Your task to perform on an android device: check the backup settings in the google photos Image 0: 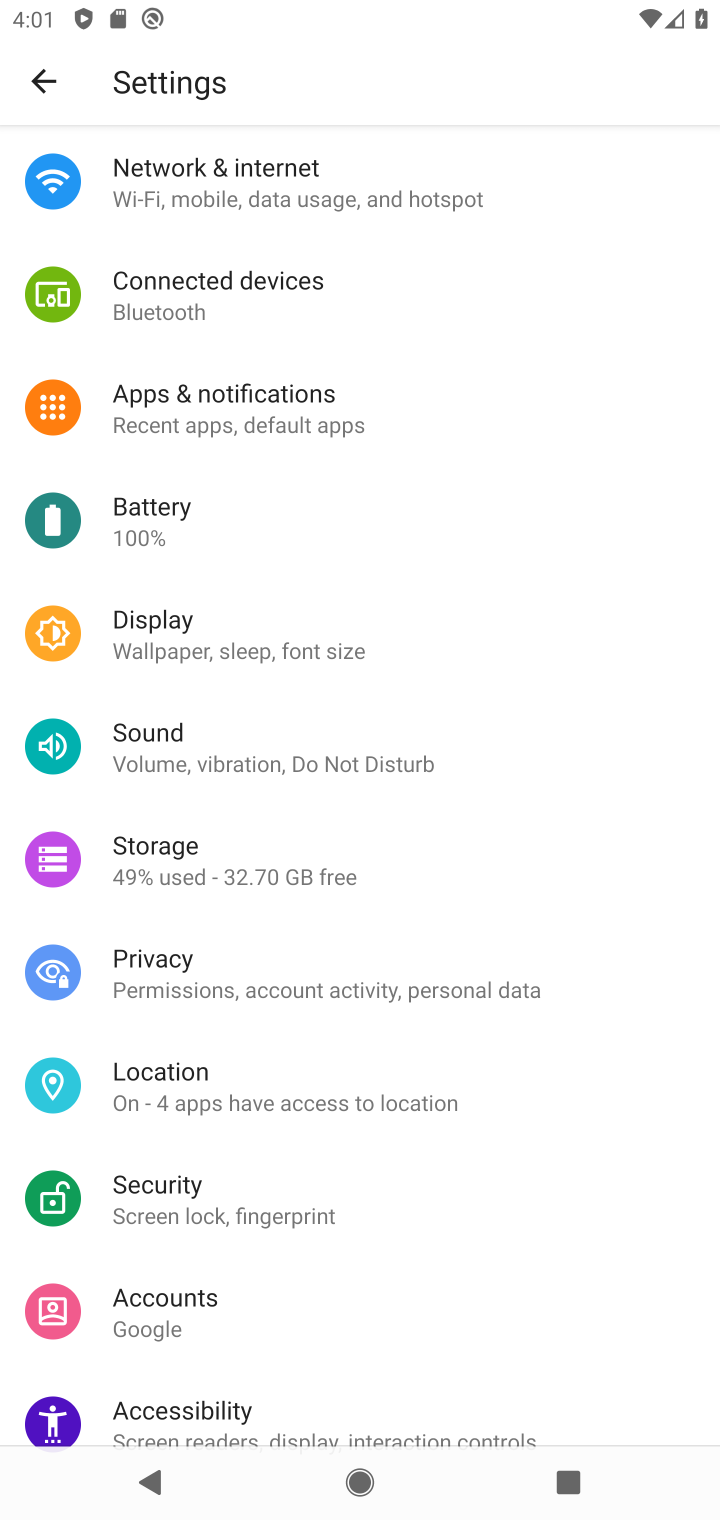
Step 0: press back button
Your task to perform on an android device: check the backup settings in the google photos Image 1: 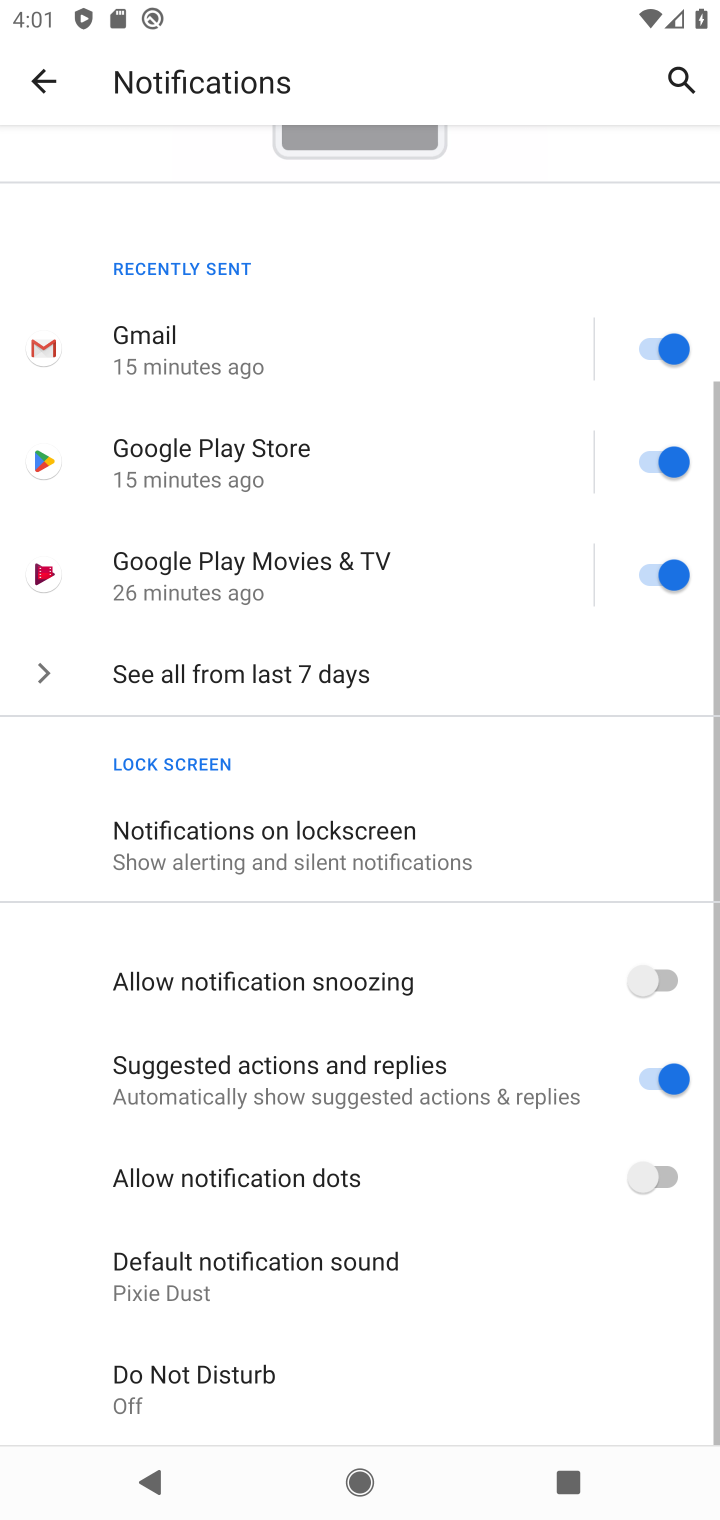
Step 1: press back button
Your task to perform on an android device: check the backup settings in the google photos Image 2: 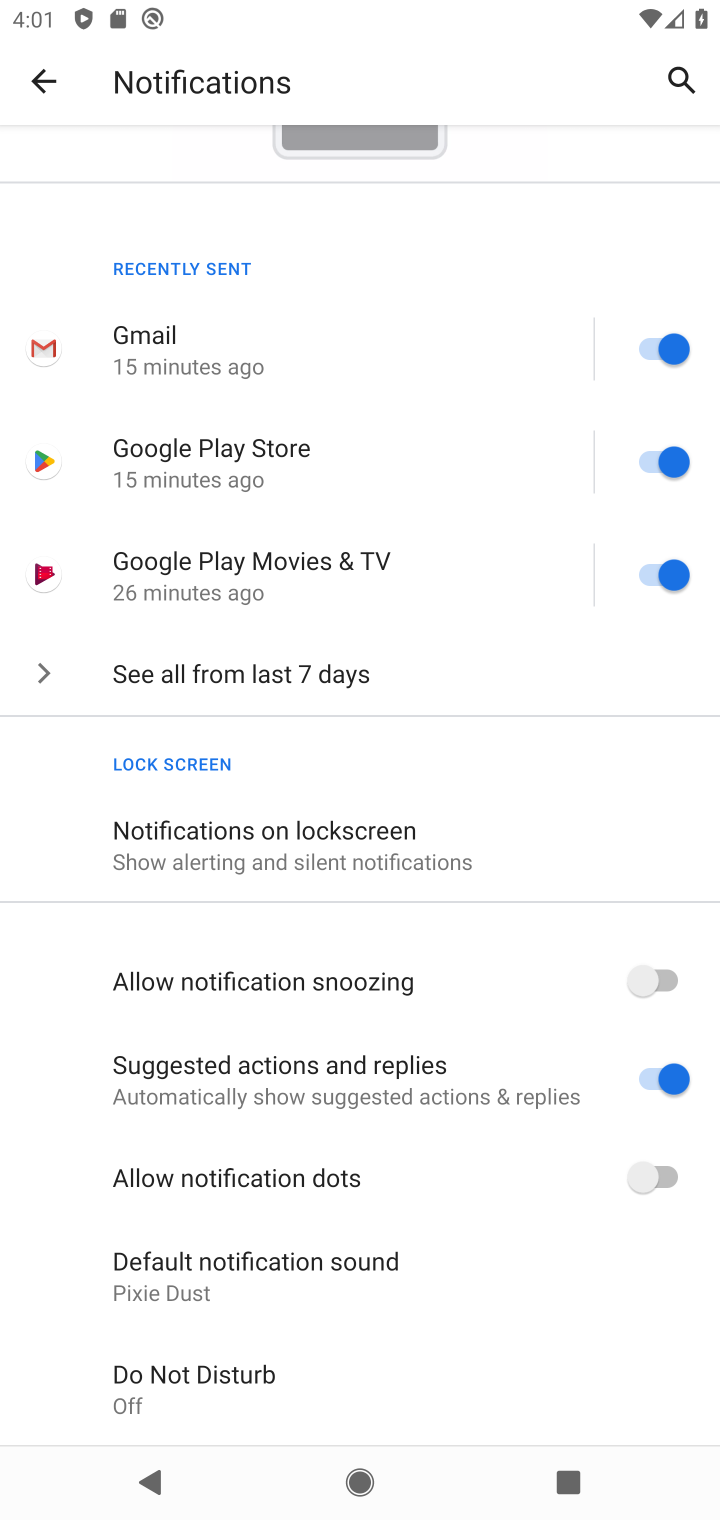
Step 2: press back button
Your task to perform on an android device: check the backup settings in the google photos Image 3: 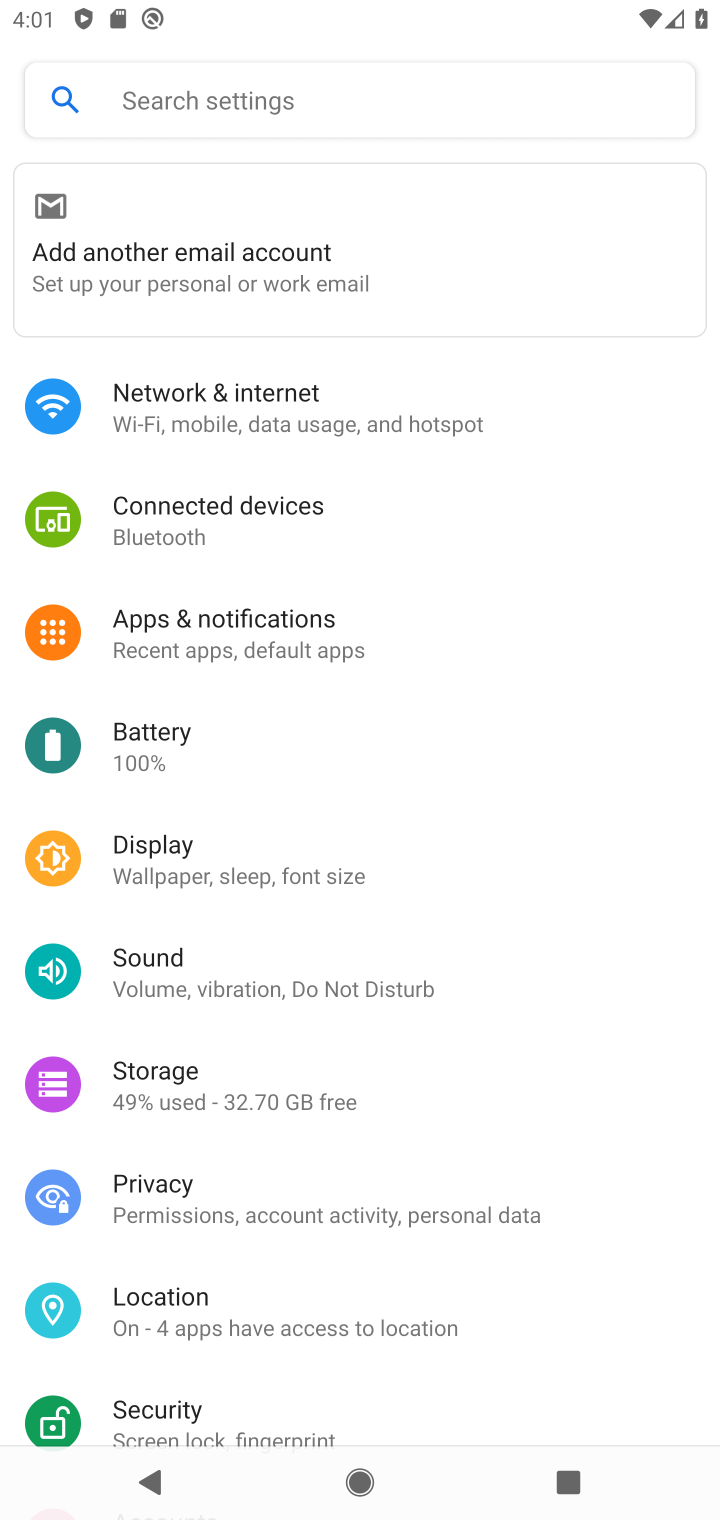
Step 3: press back button
Your task to perform on an android device: check the backup settings in the google photos Image 4: 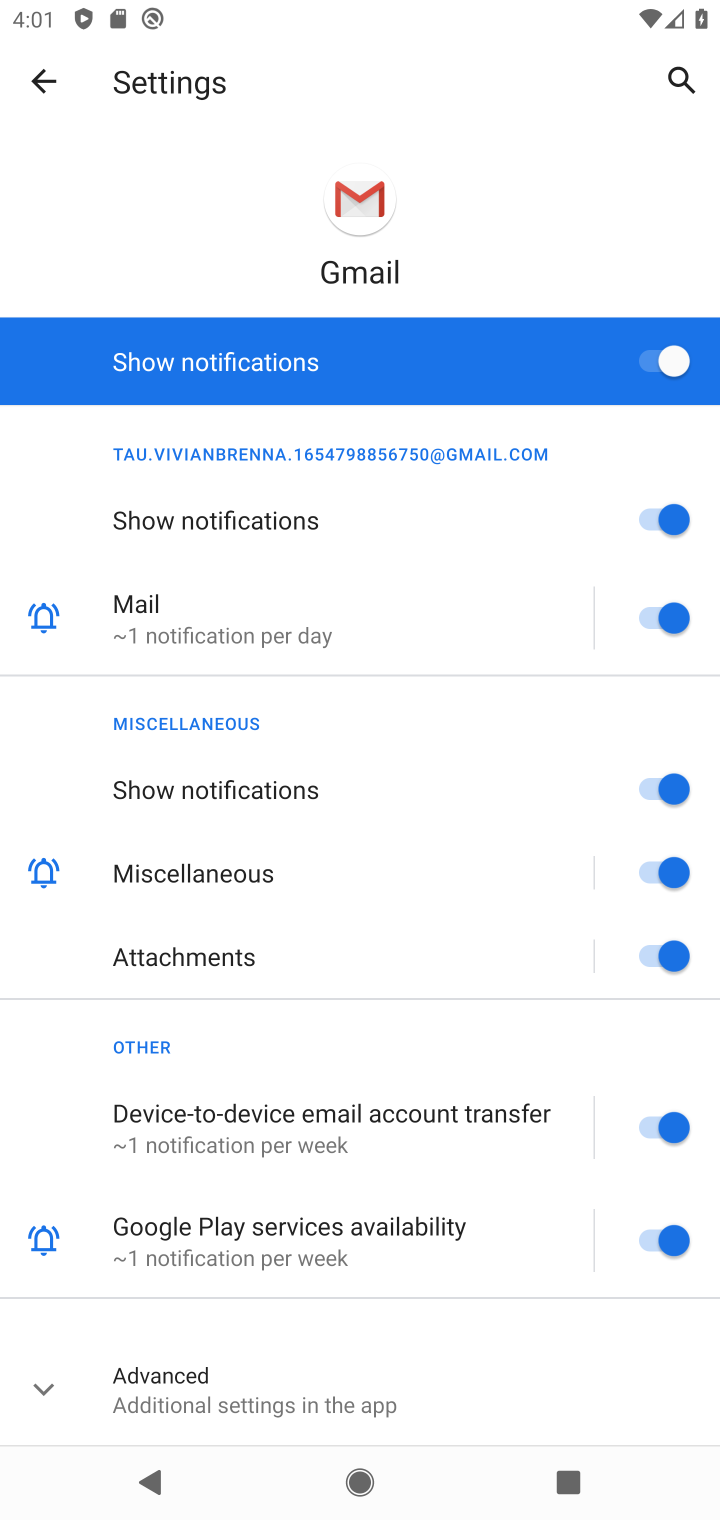
Step 4: press back button
Your task to perform on an android device: check the backup settings in the google photos Image 5: 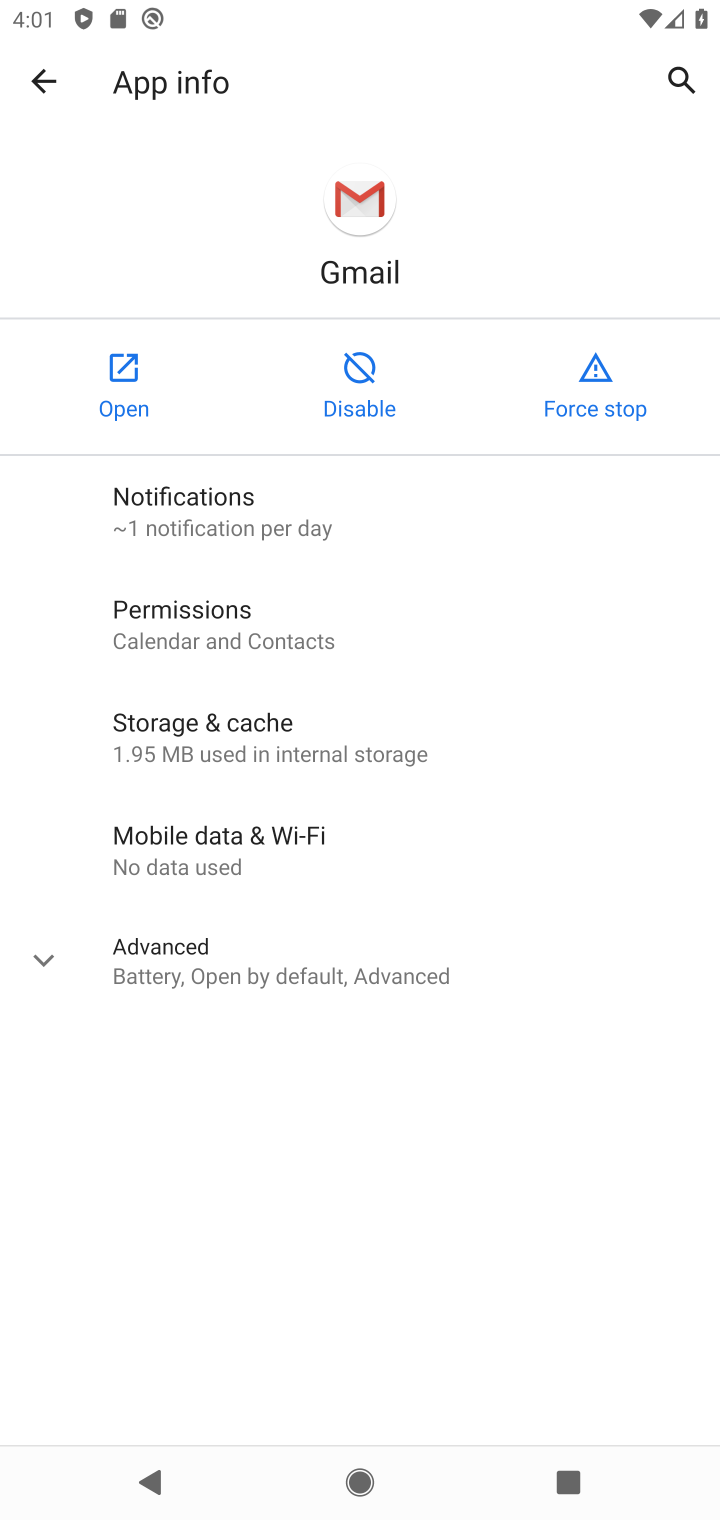
Step 5: press back button
Your task to perform on an android device: check the backup settings in the google photos Image 6: 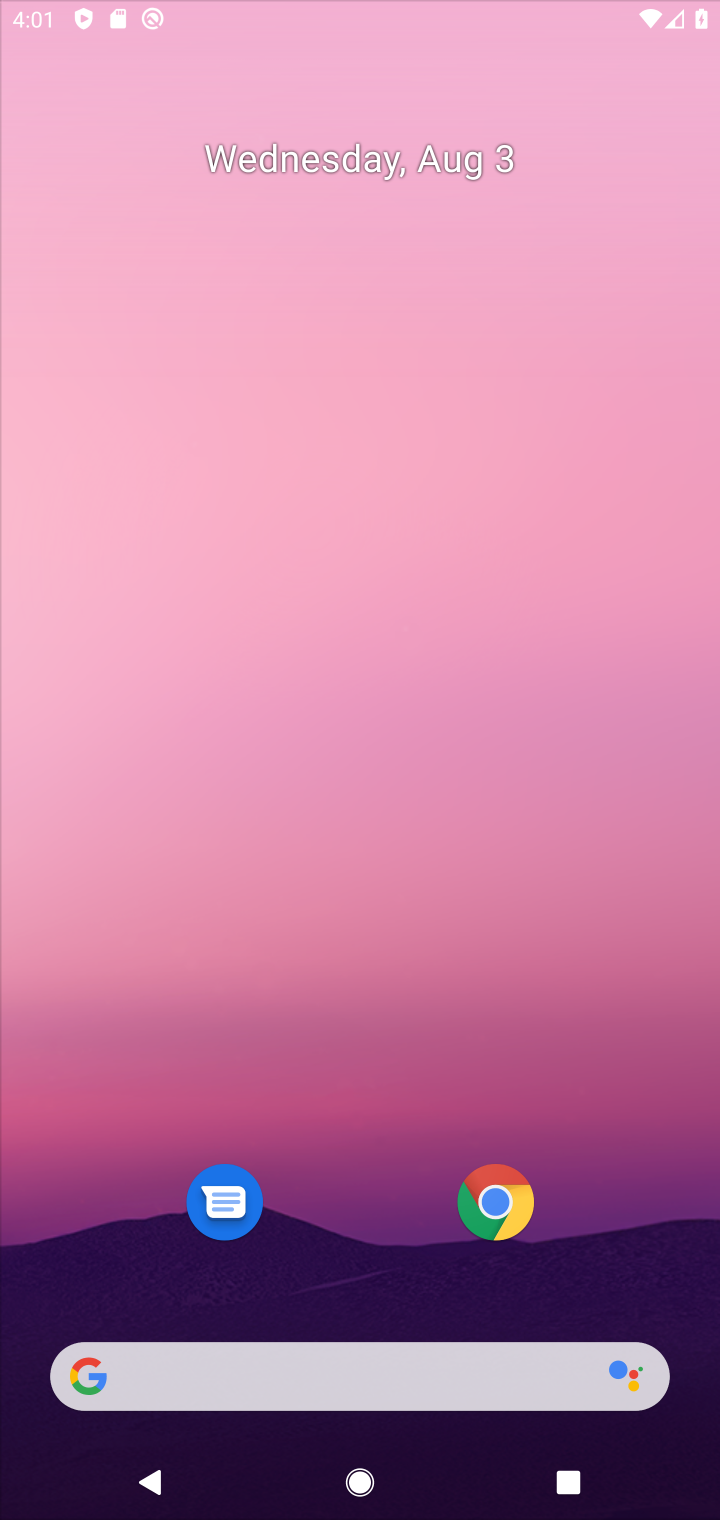
Step 6: press back button
Your task to perform on an android device: check the backup settings in the google photos Image 7: 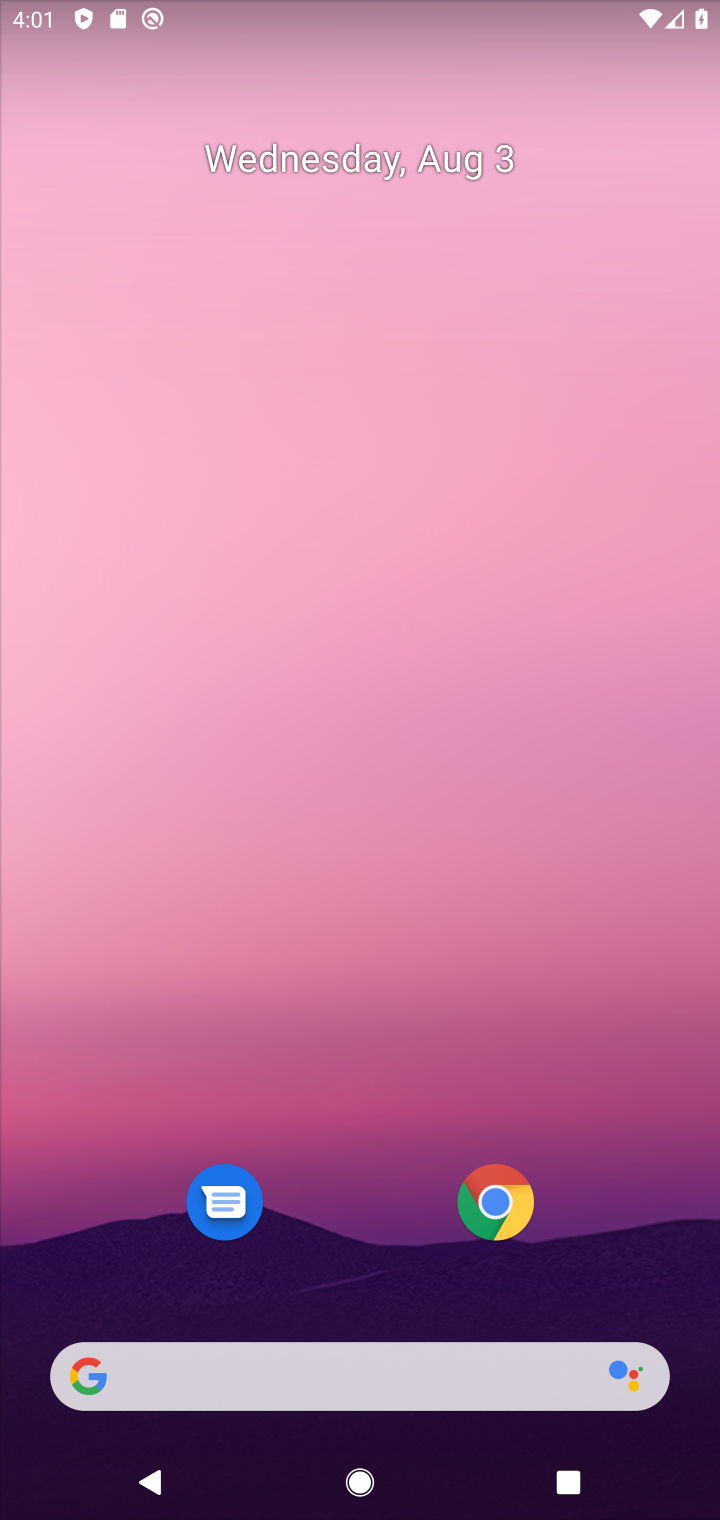
Step 7: drag from (321, 1168) to (529, 105)
Your task to perform on an android device: check the backup settings in the google photos Image 8: 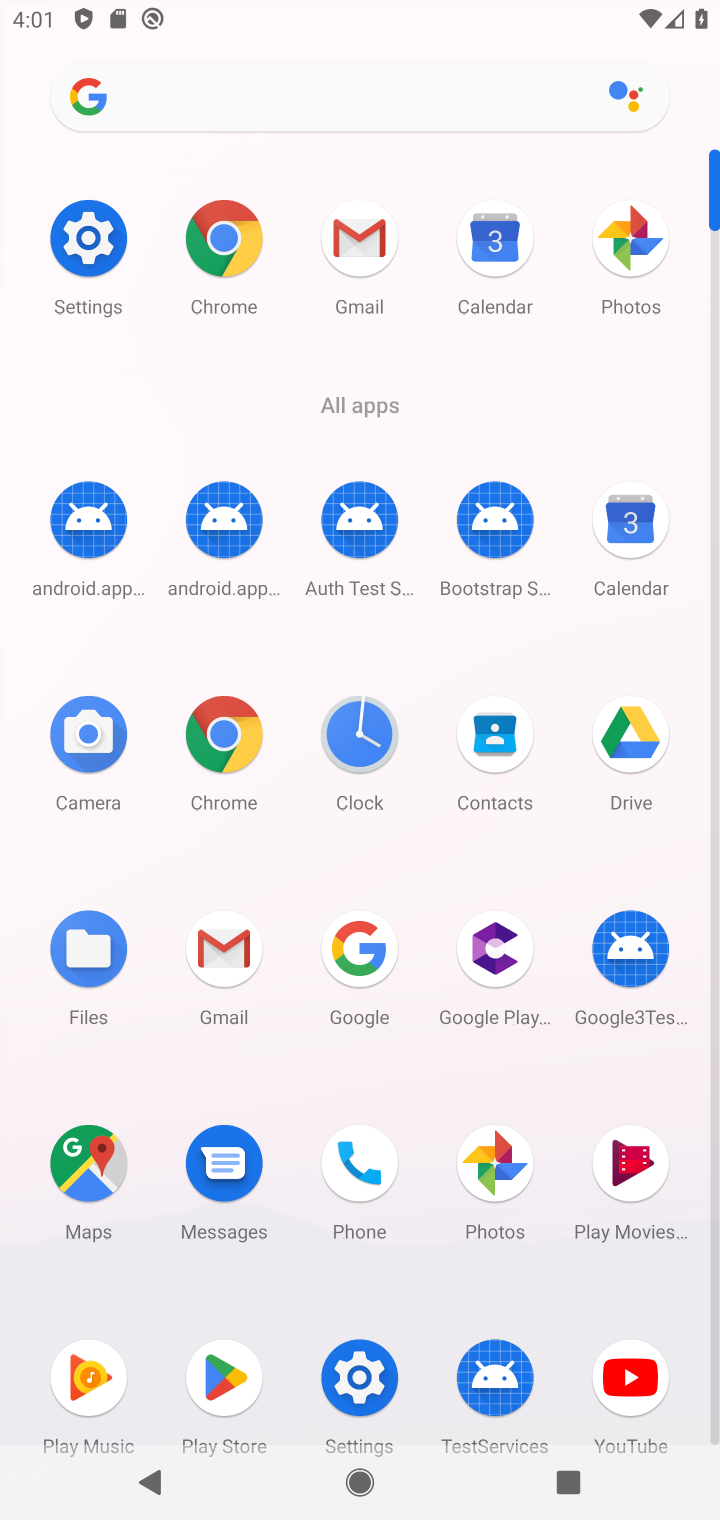
Step 8: click (501, 1175)
Your task to perform on an android device: check the backup settings in the google photos Image 9: 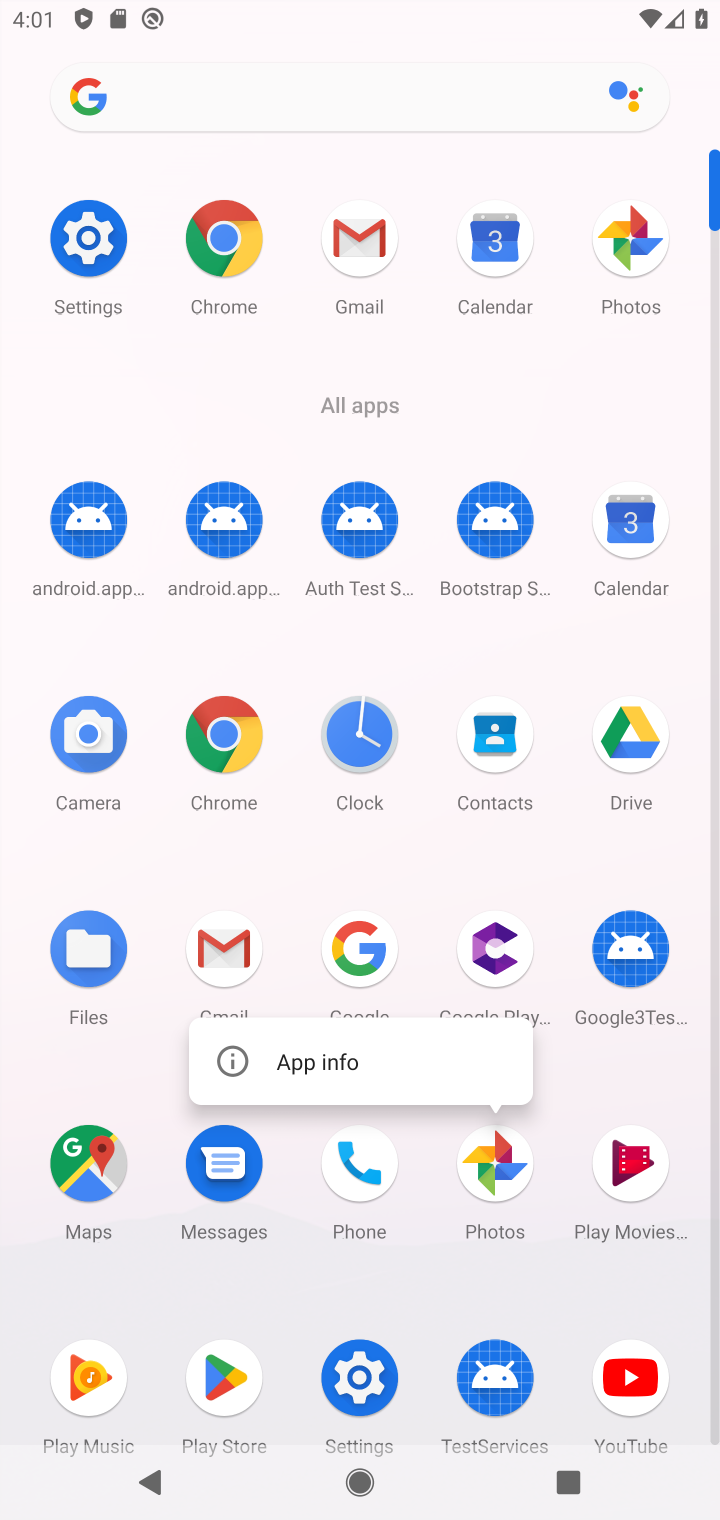
Step 9: click (503, 1173)
Your task to perform on an android device: check the backup settings in the google photos Image 10: 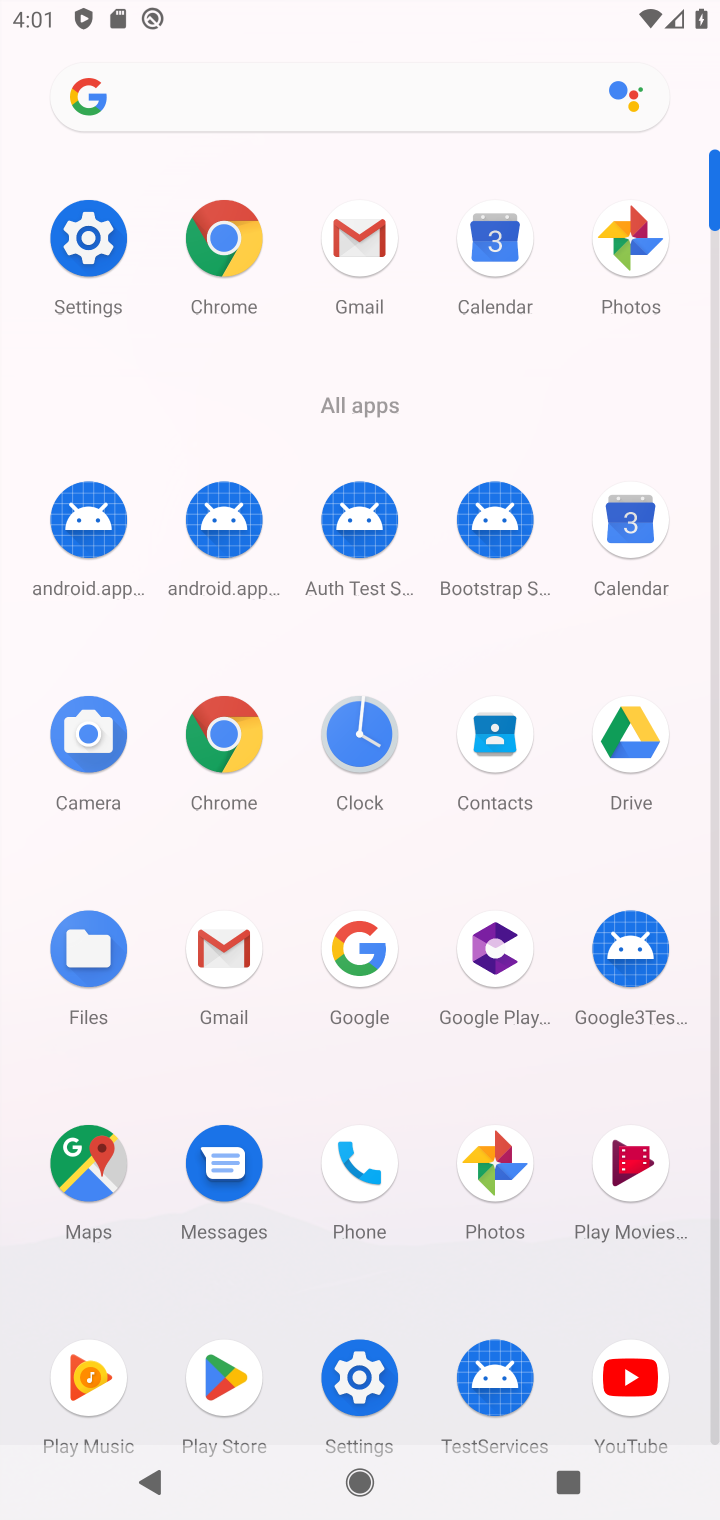
Step 10: click (504, 1165)
Your task to perform on an android device: check the backup settings in the google photos Image 11: 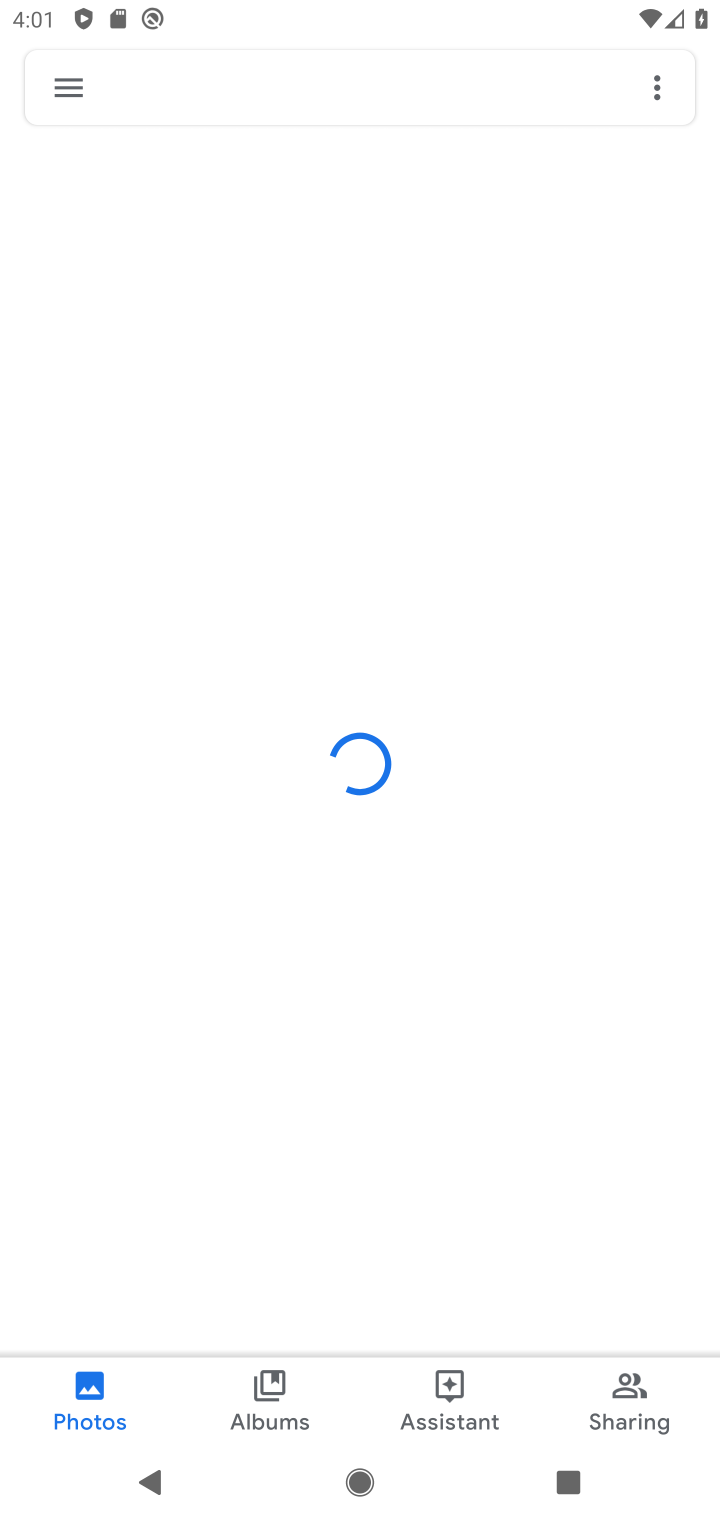
Step 11: click (73, 70)
Your task to perform on an android device: check the backup settings in the google photos Image 12: 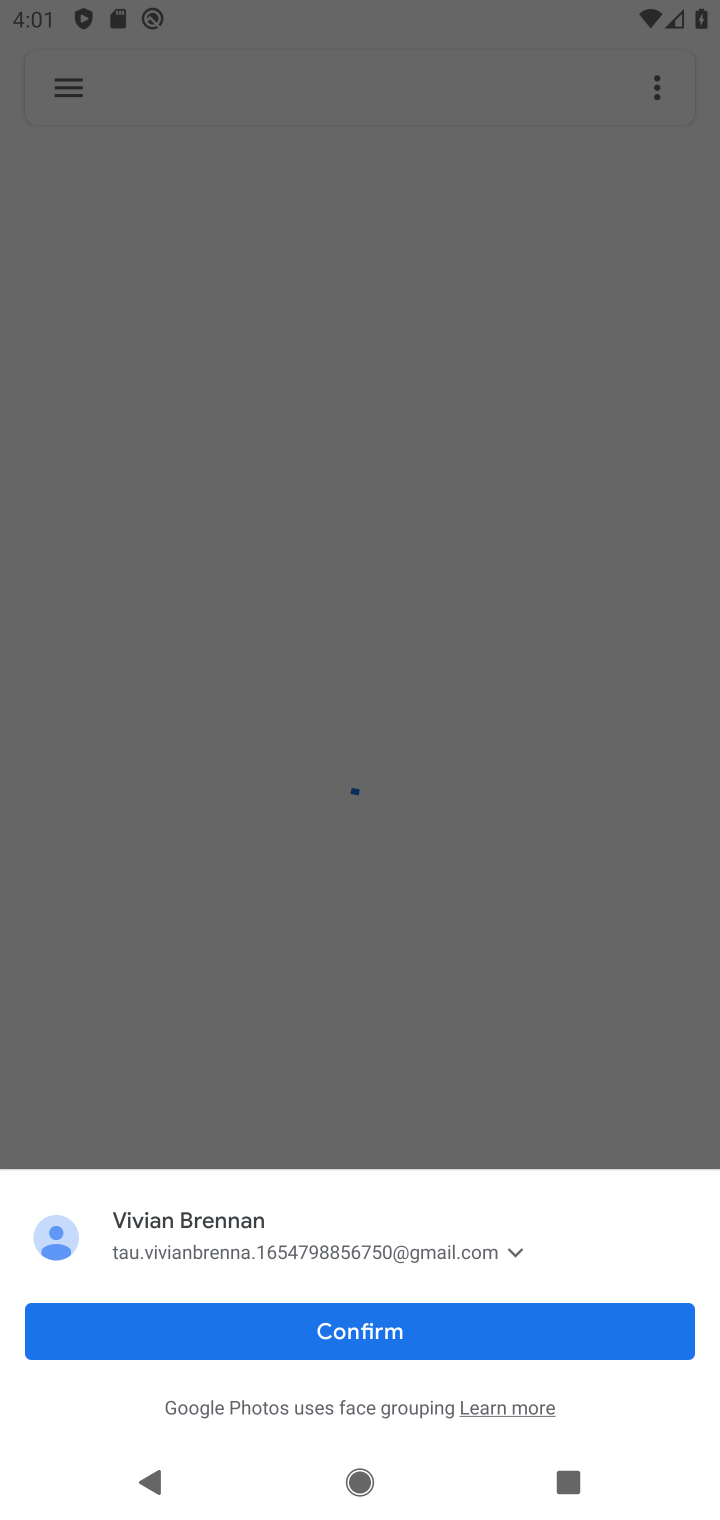
Step 12: click (294, 1356)
Your task to perform on an android device: check the backup settings in the google photos Image 13: 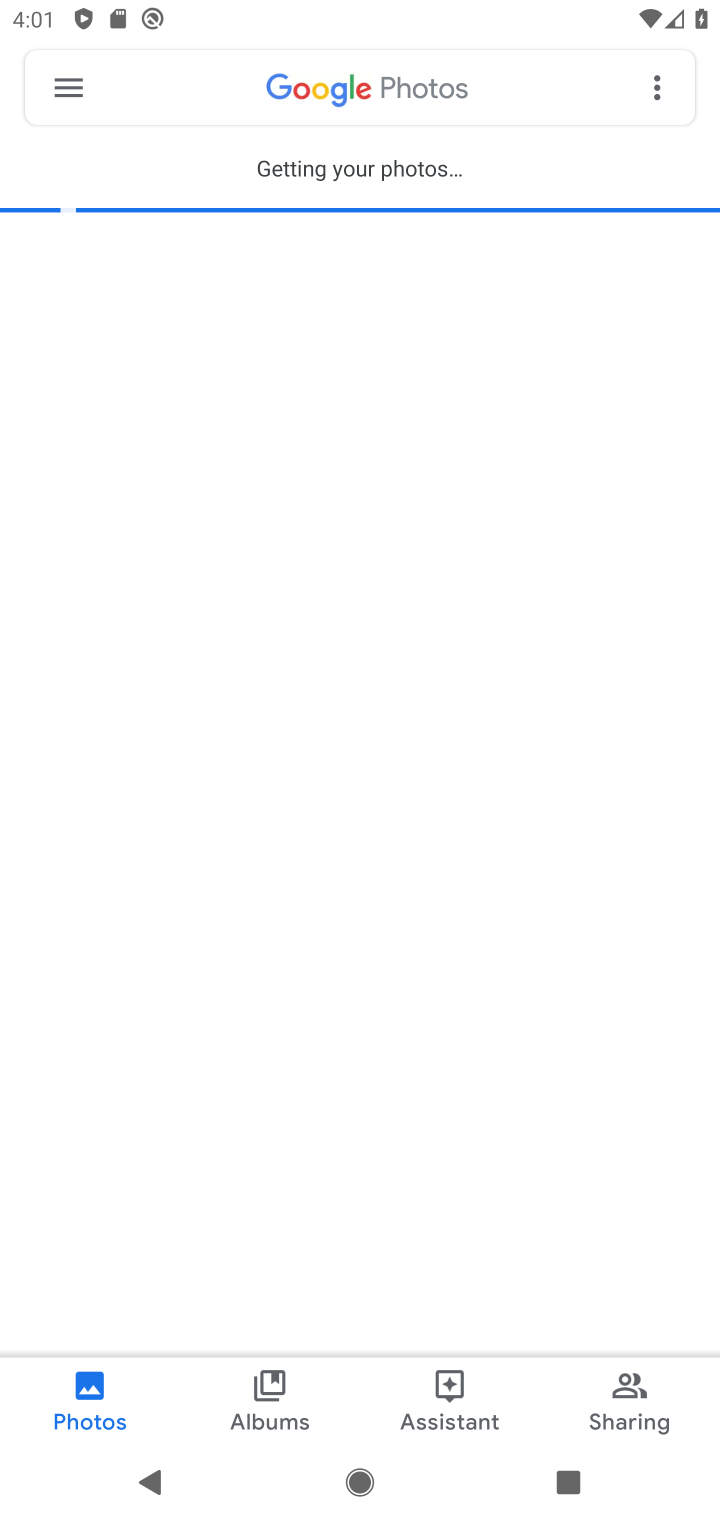
Step 13: click (73, 107)
Your task to perform on an android device: check the backup settings in the google photos Image 14: 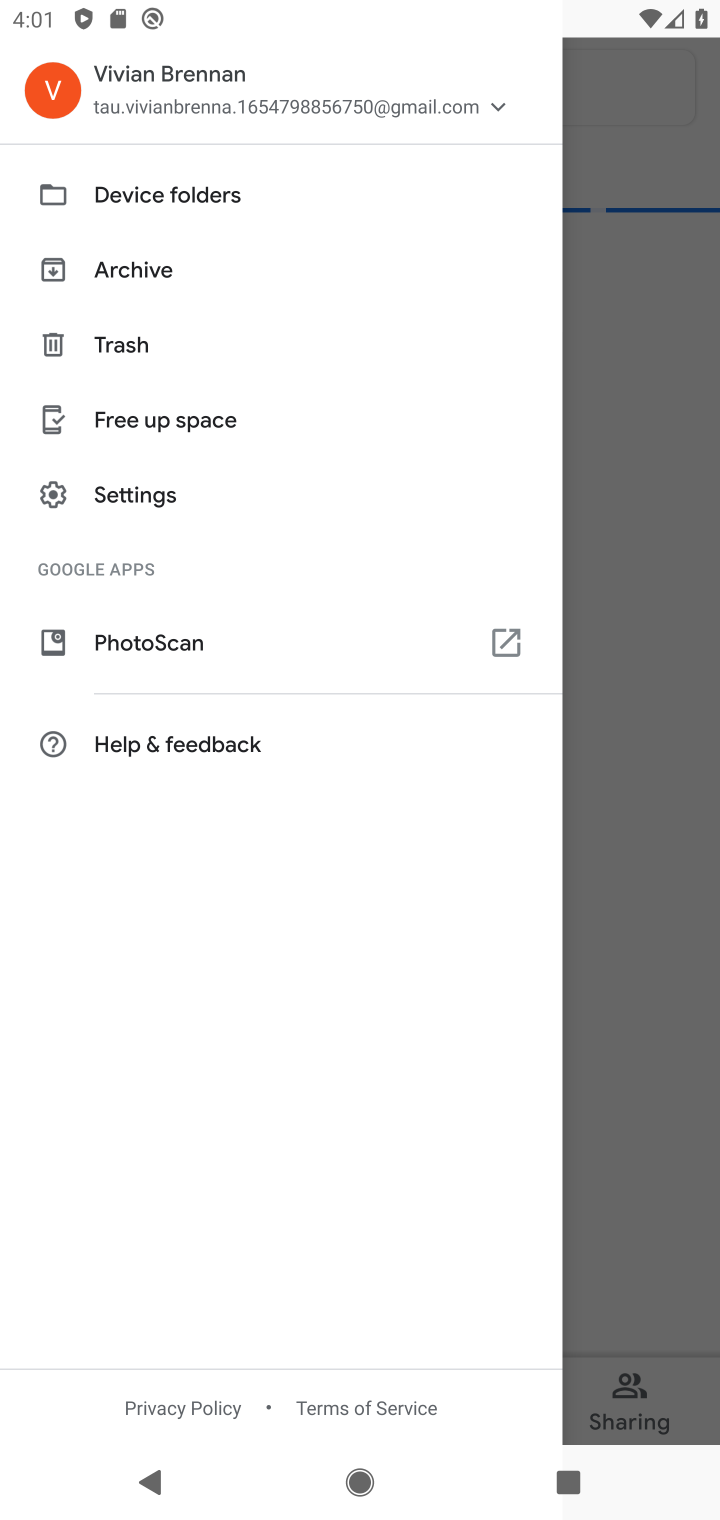
Step 14: click (158, 508)
Your task to perform on an android device: check the backup settings in the google photos Image 15: 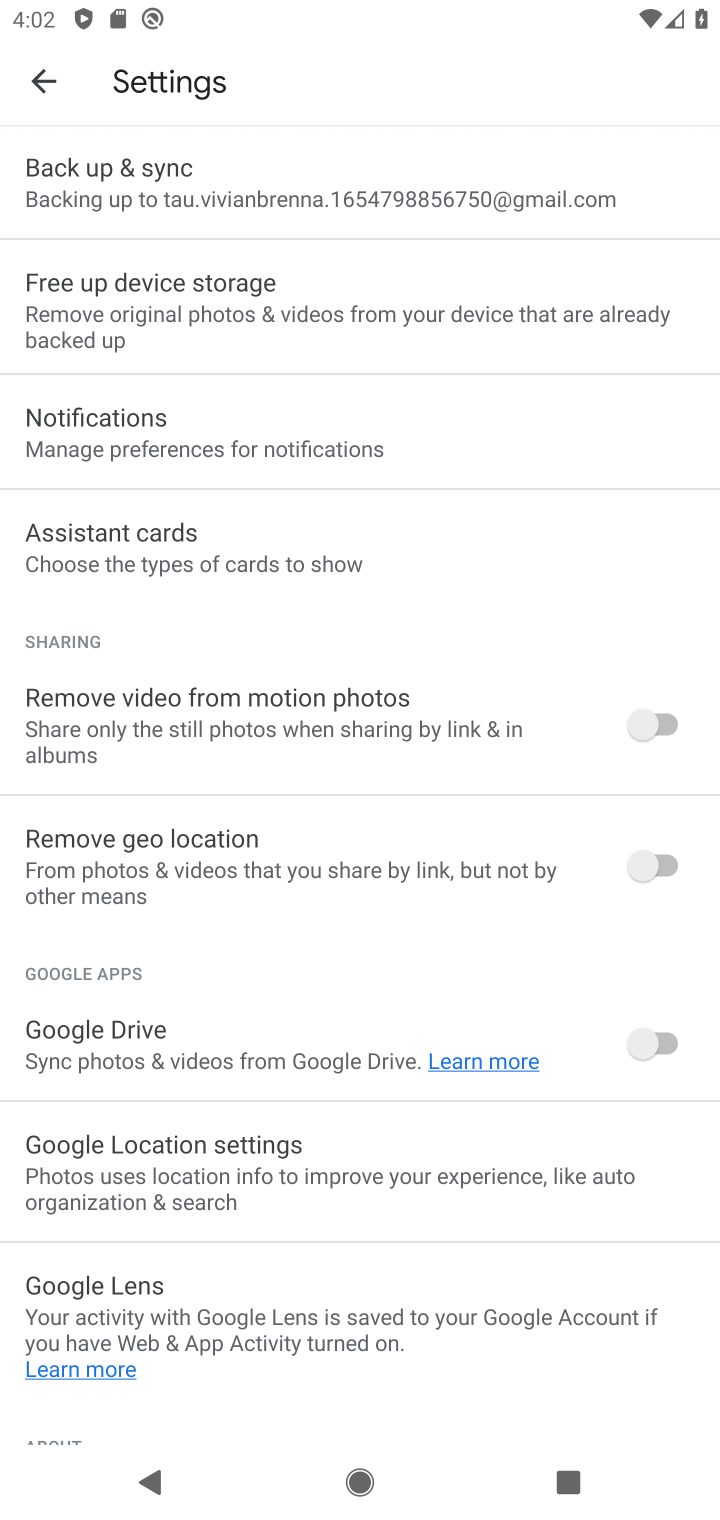
Step 15: click (199, 189)
Your task to perform on an android device: check the backup settings in the google photos Image 16: 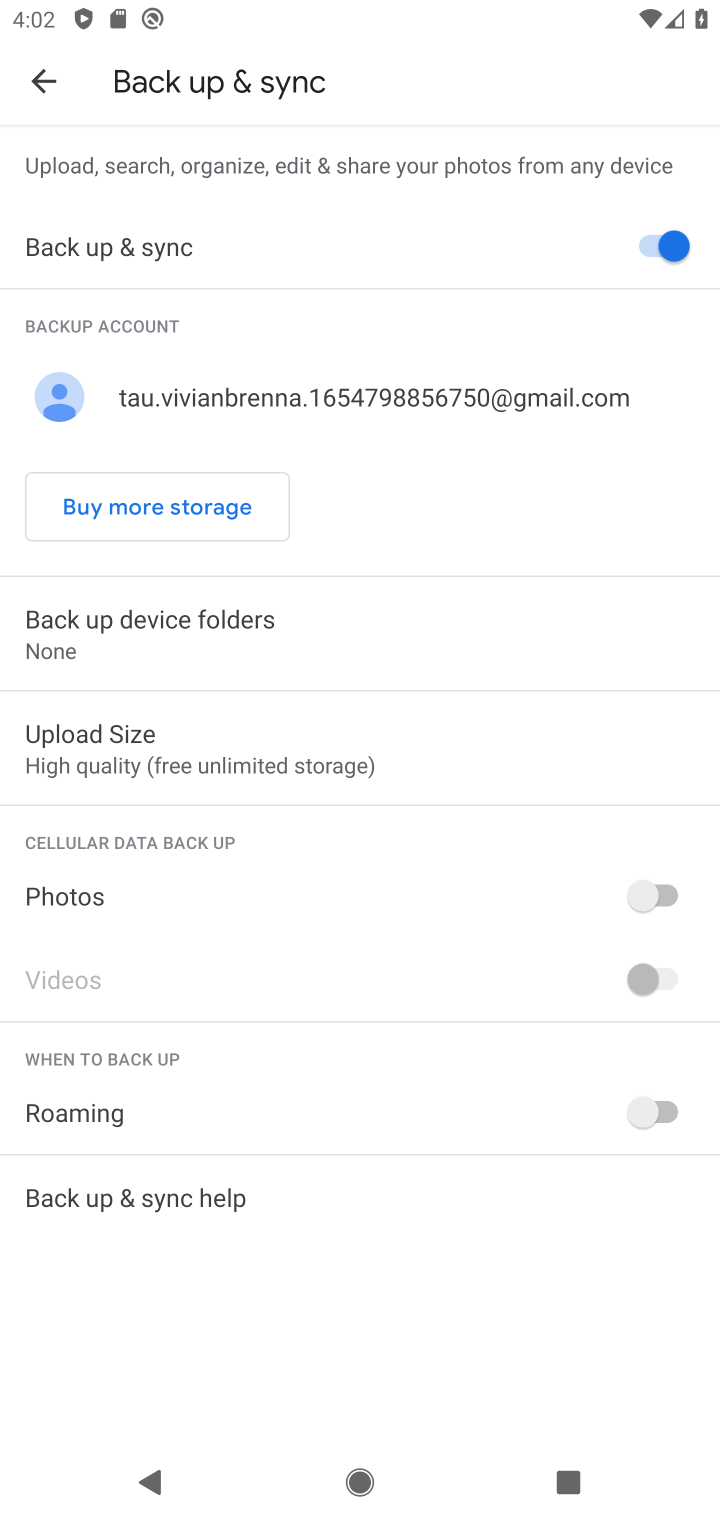
Step 16: press back button
Your task to perform on an android device: check the backup settings in the google photos Image 17: 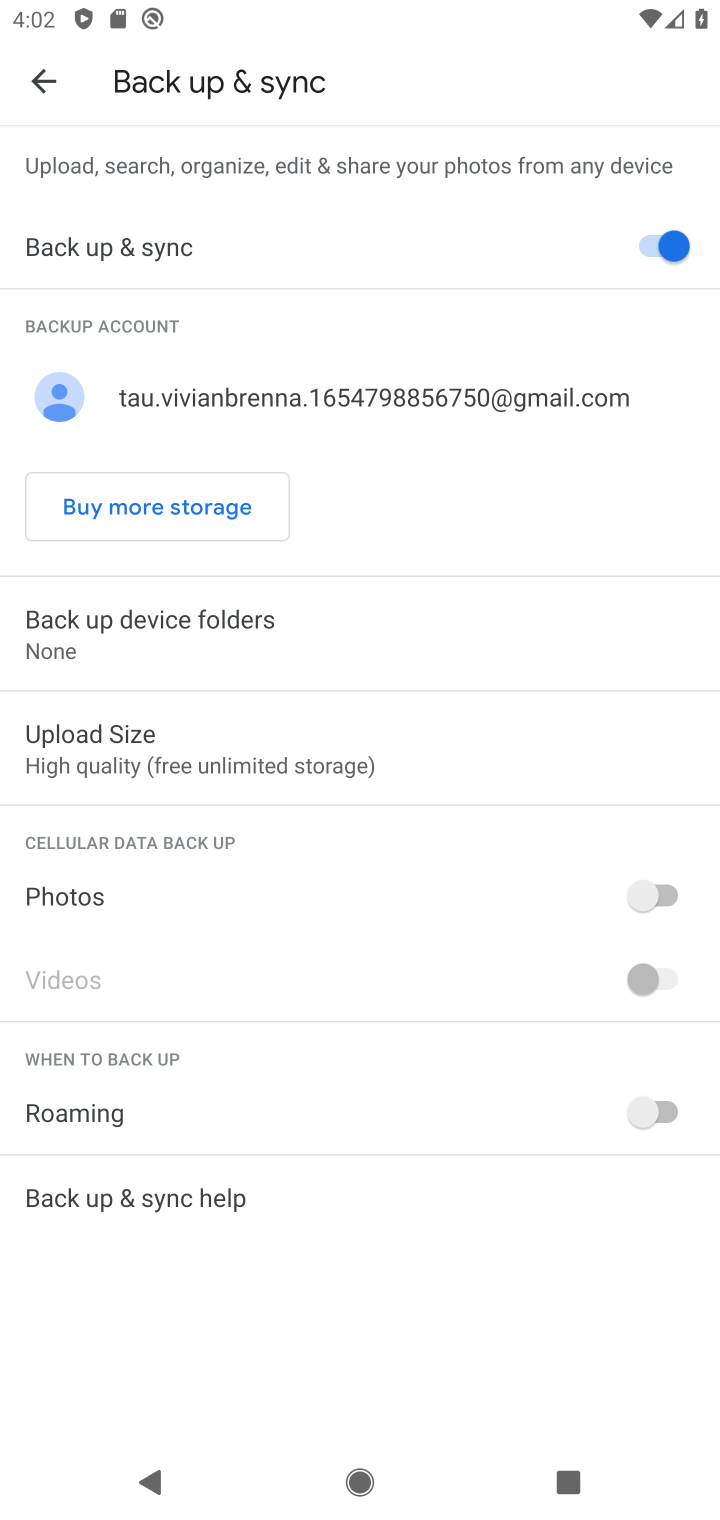
Step 17: press back button
Your task to perform on an android device: check the backup settings in the google photos Image 18: 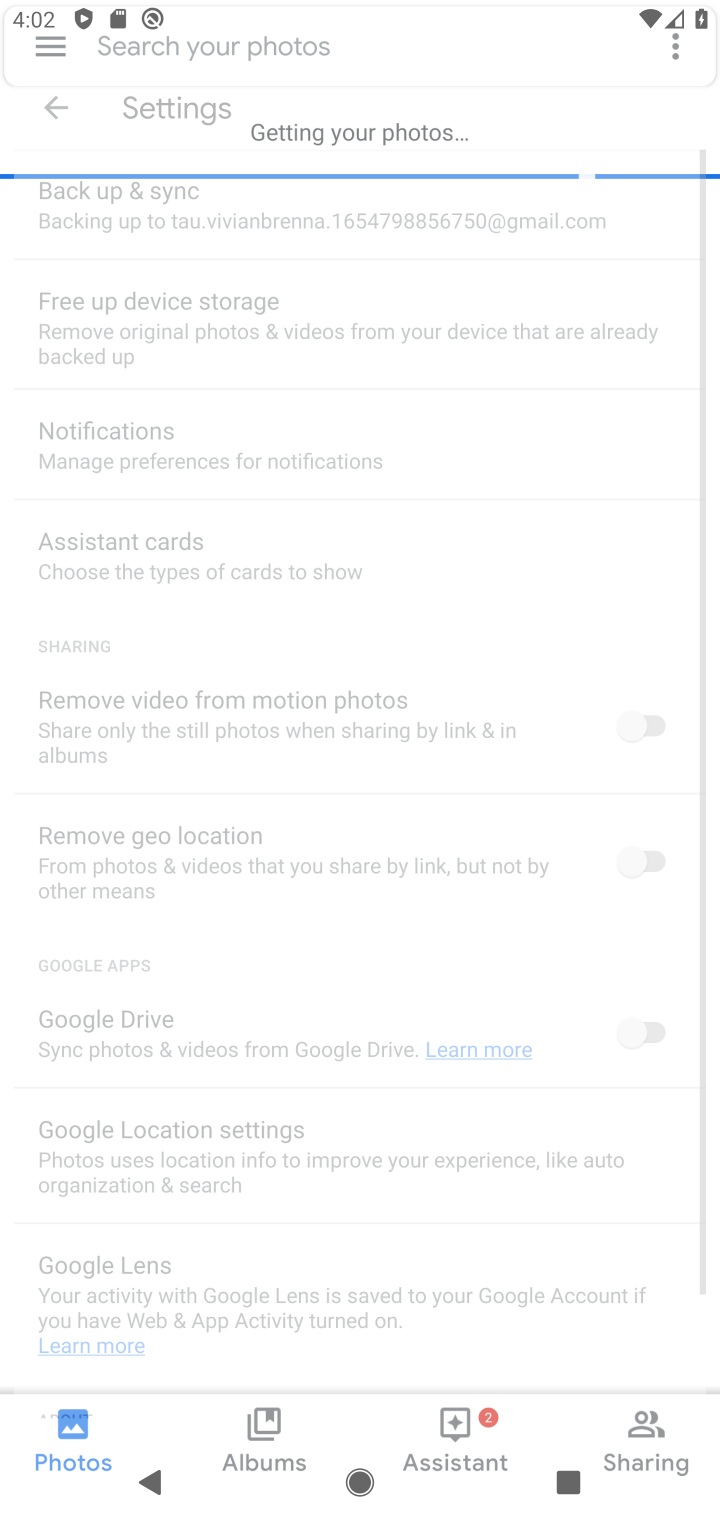
Step 18: press home button
Your task to perform on an android device: check the backup settings in the google photos Image 19: 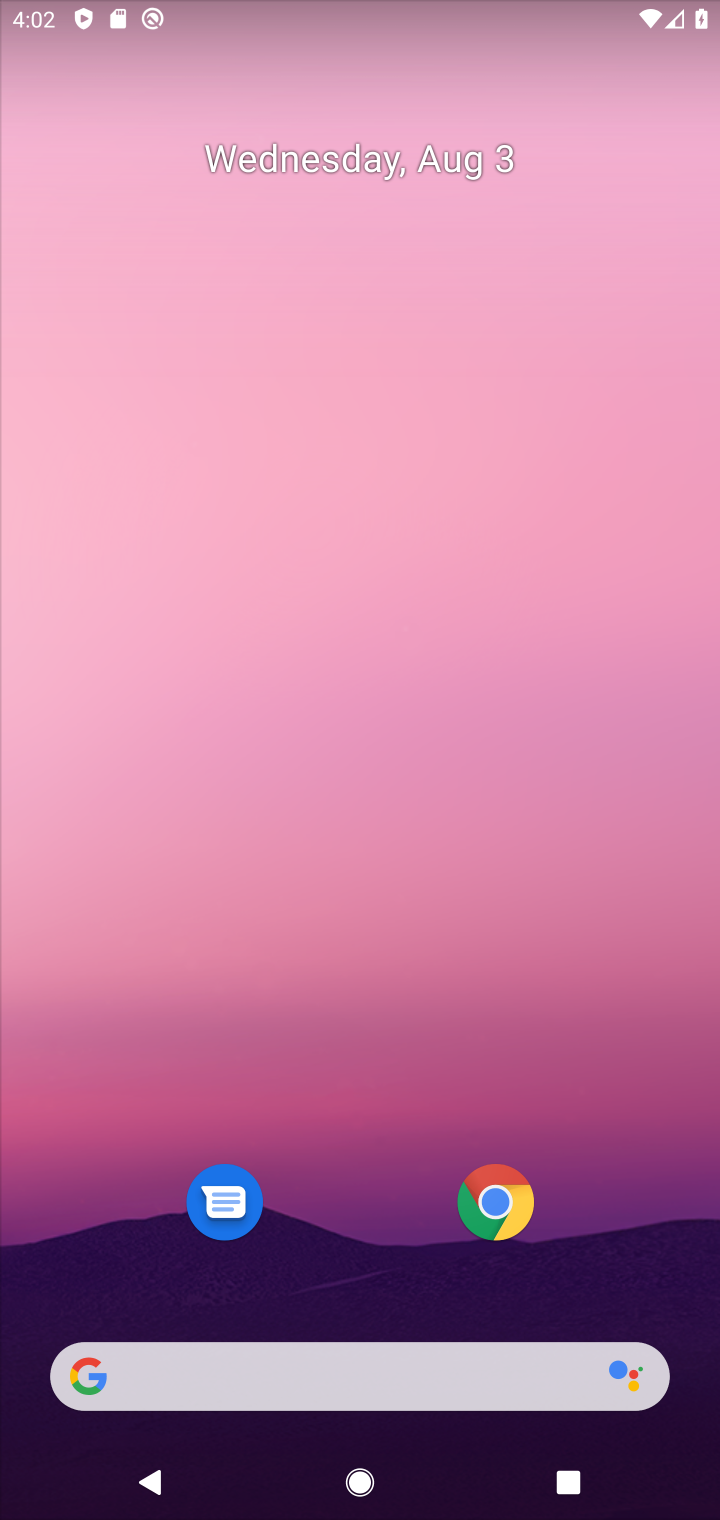
Step 19: drag from (406, 764) to (473, 82)
Your task to perform on an android device: check the backup settings in the google photos Image 20: 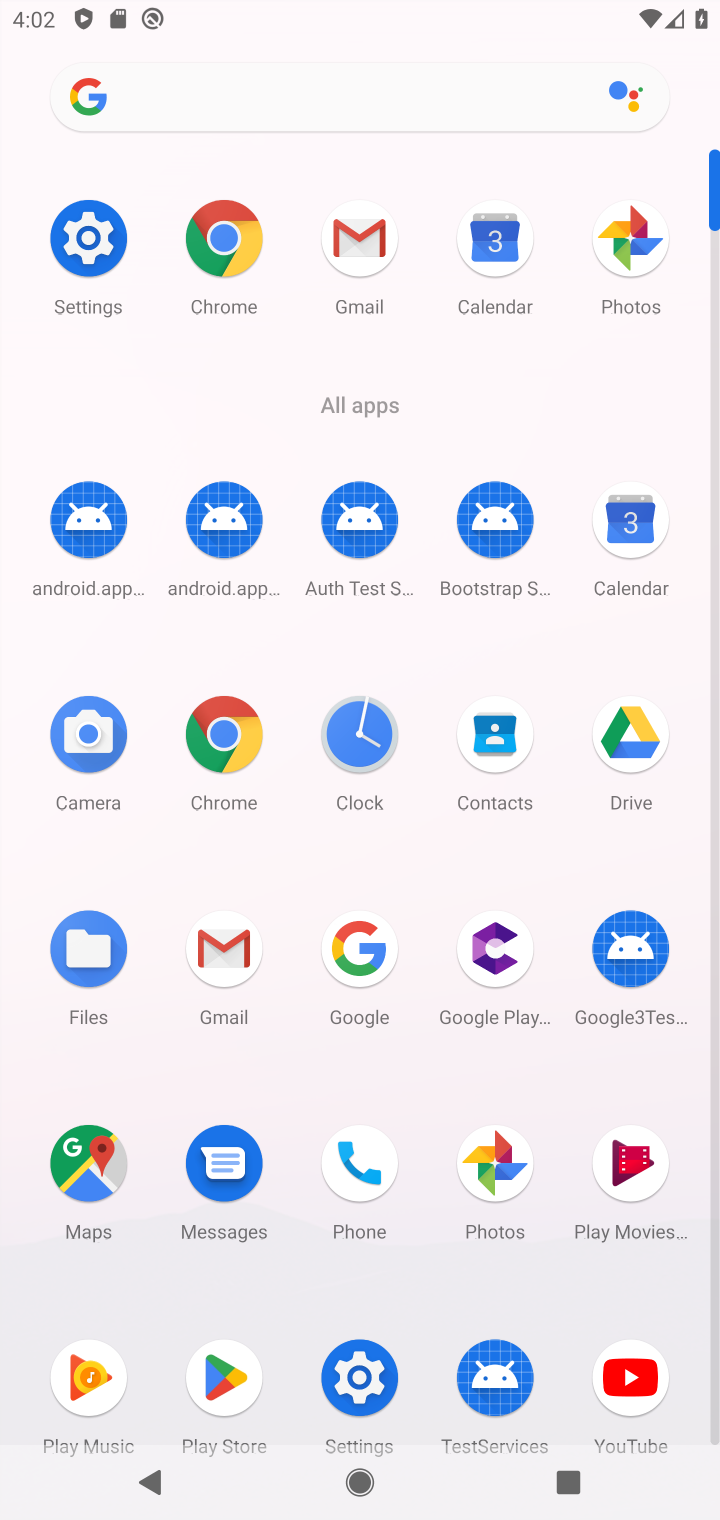
Step 20: click (517, 1167)
Your task to perform on an android device: check the backup settings in the google photos Image 21: 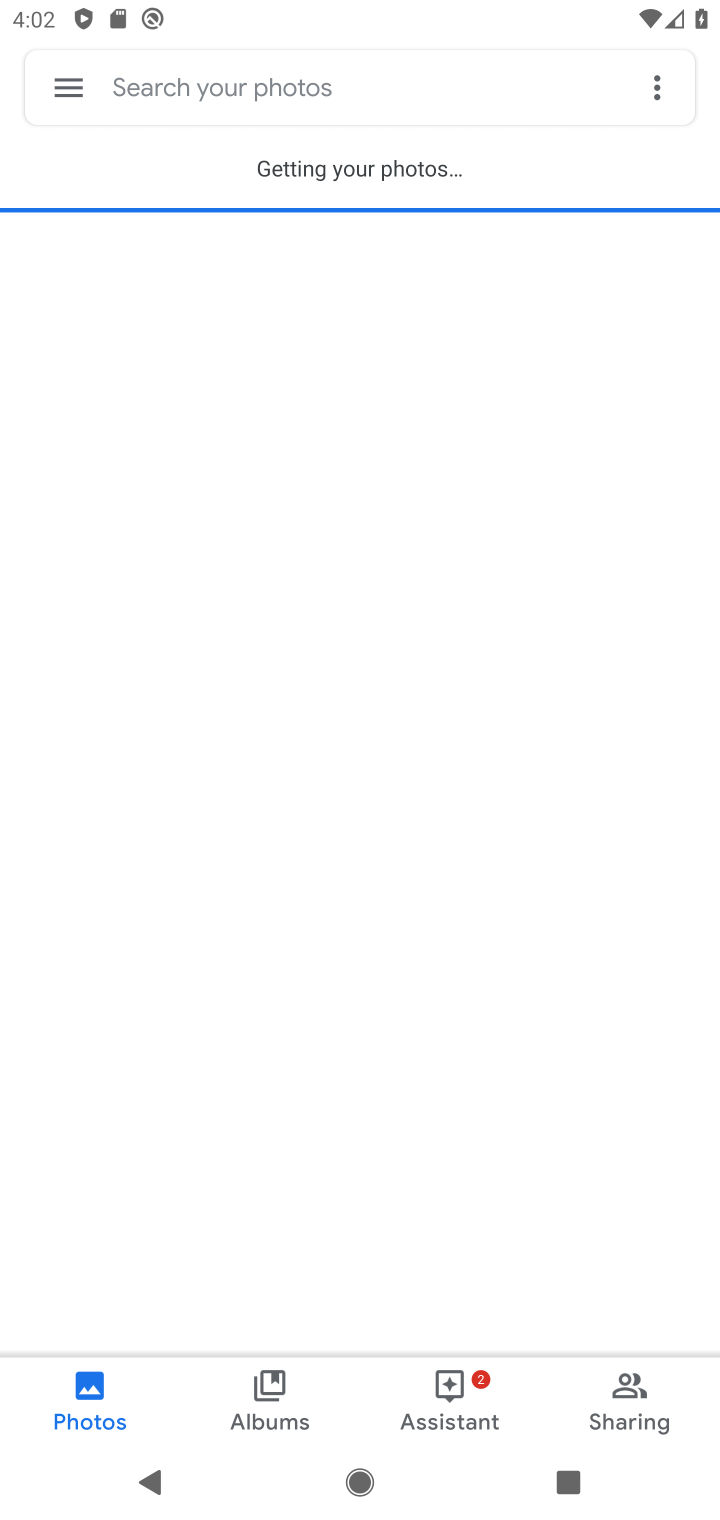
Step 21: click (68, 94)
Your task to perform on an android device: check the backup settings in the google photos Image 22: 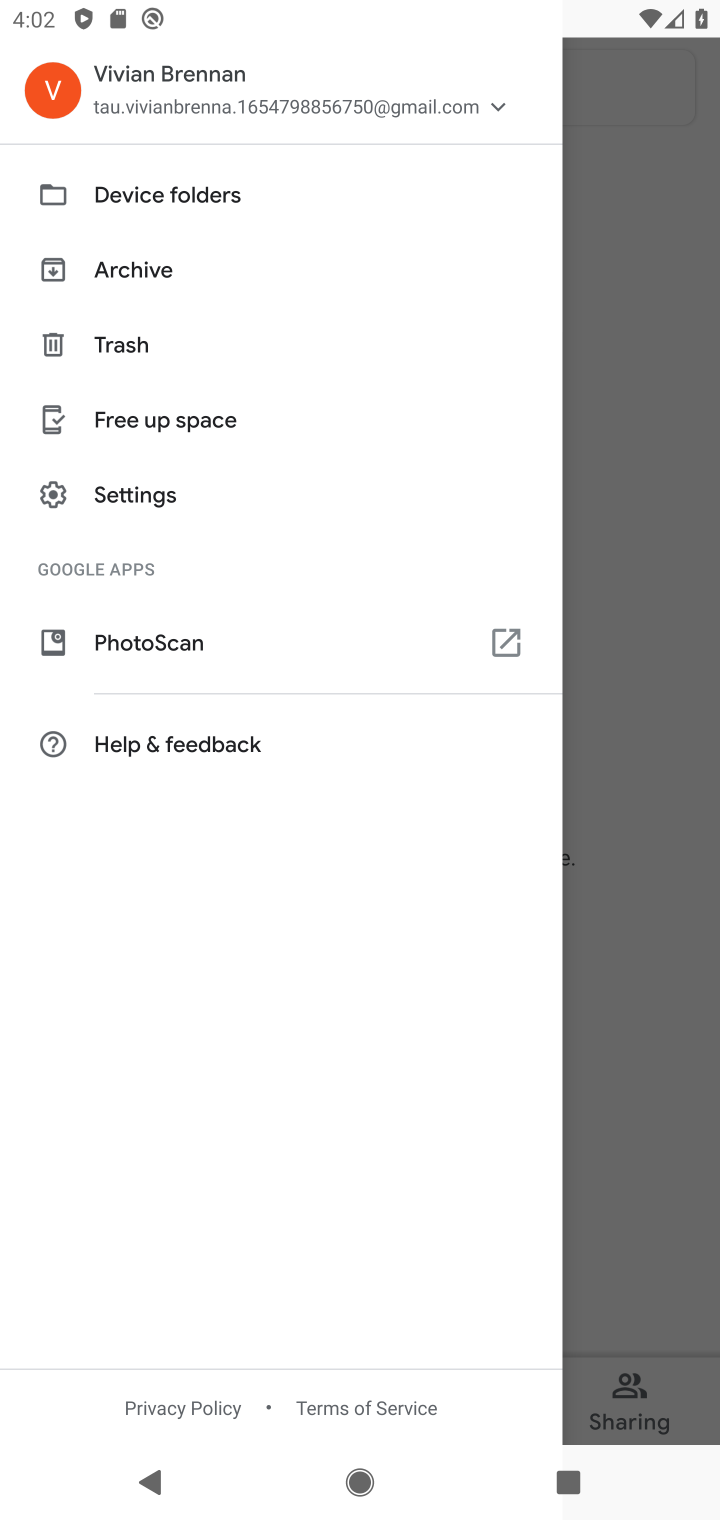
Step 22: click (153, 485)
Your task to perform on an android device: check the backup settings in the google photos Image 23: 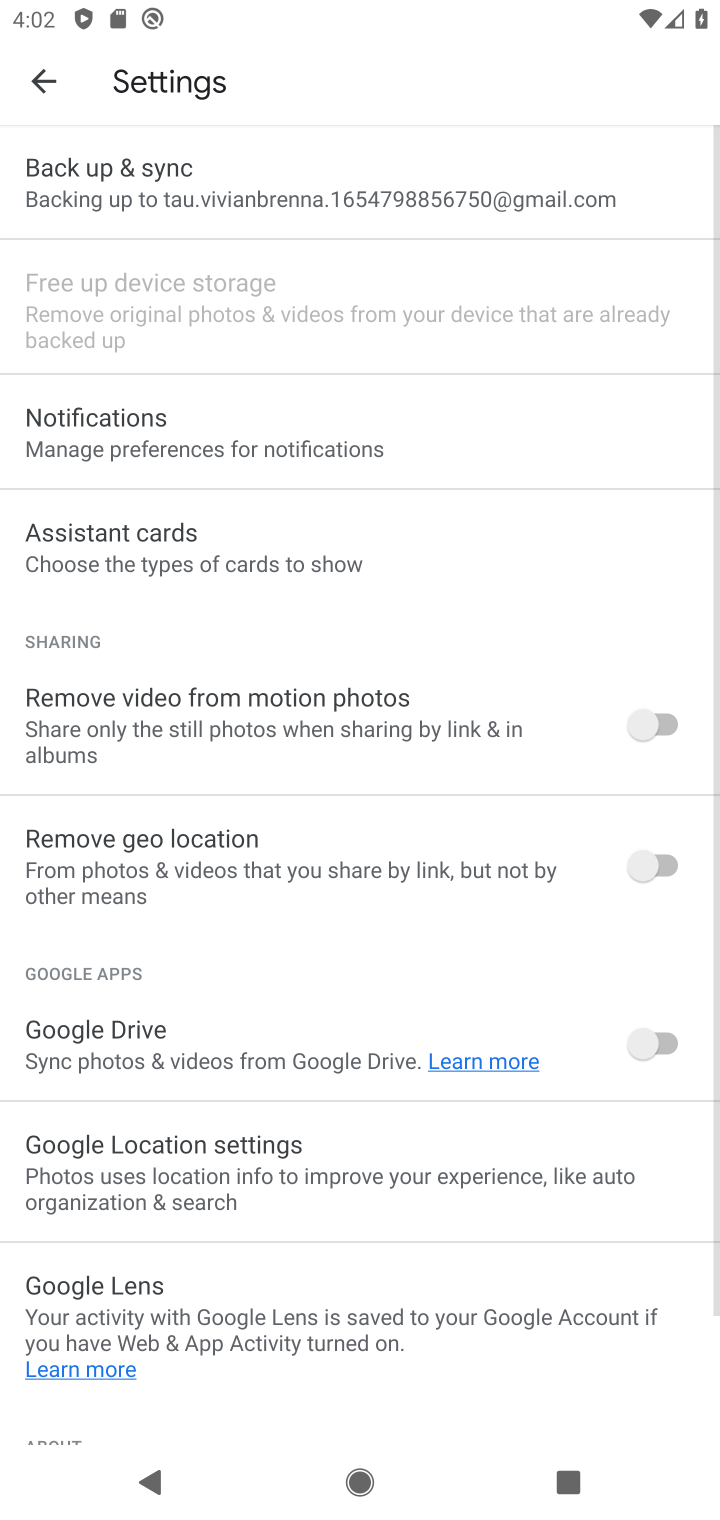
Step 23: click (202, 187)
Your task to perform on an android device: check the backup settings in the google photos Image 24: 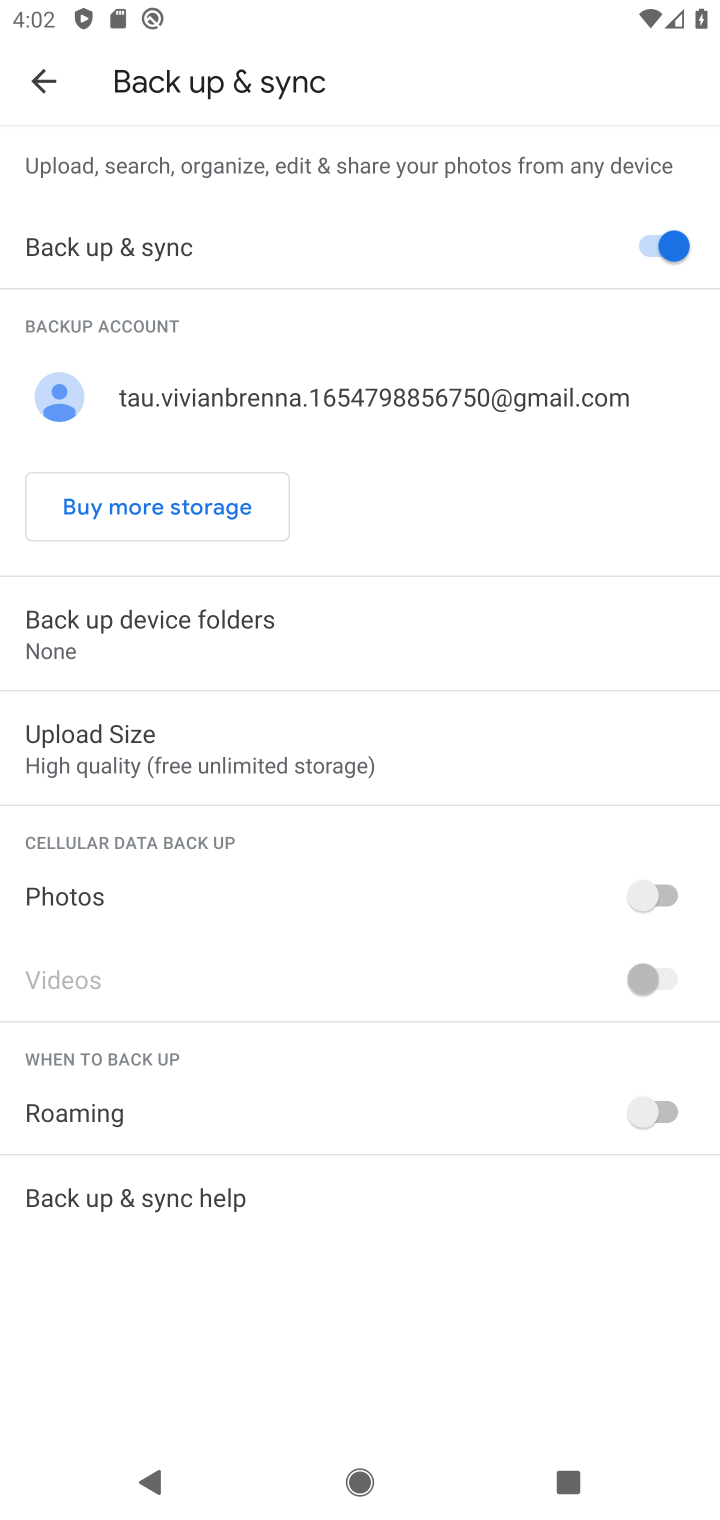
Step 24: task complete